Your task to perform on an android device: open a bookmark in the chrome app Image 0: 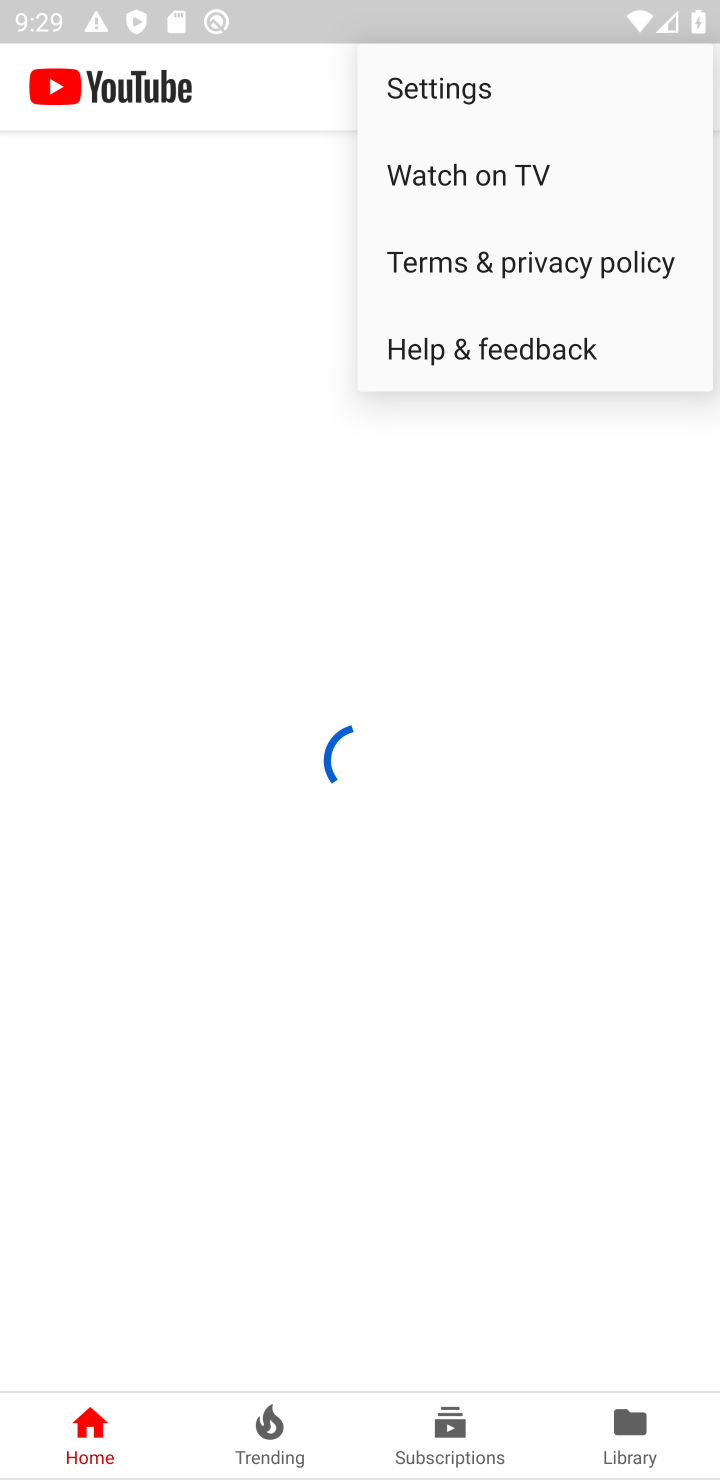
Step 0: press home button
Your task to perform on an android device: open a bookmark in the chrome app Image 1: 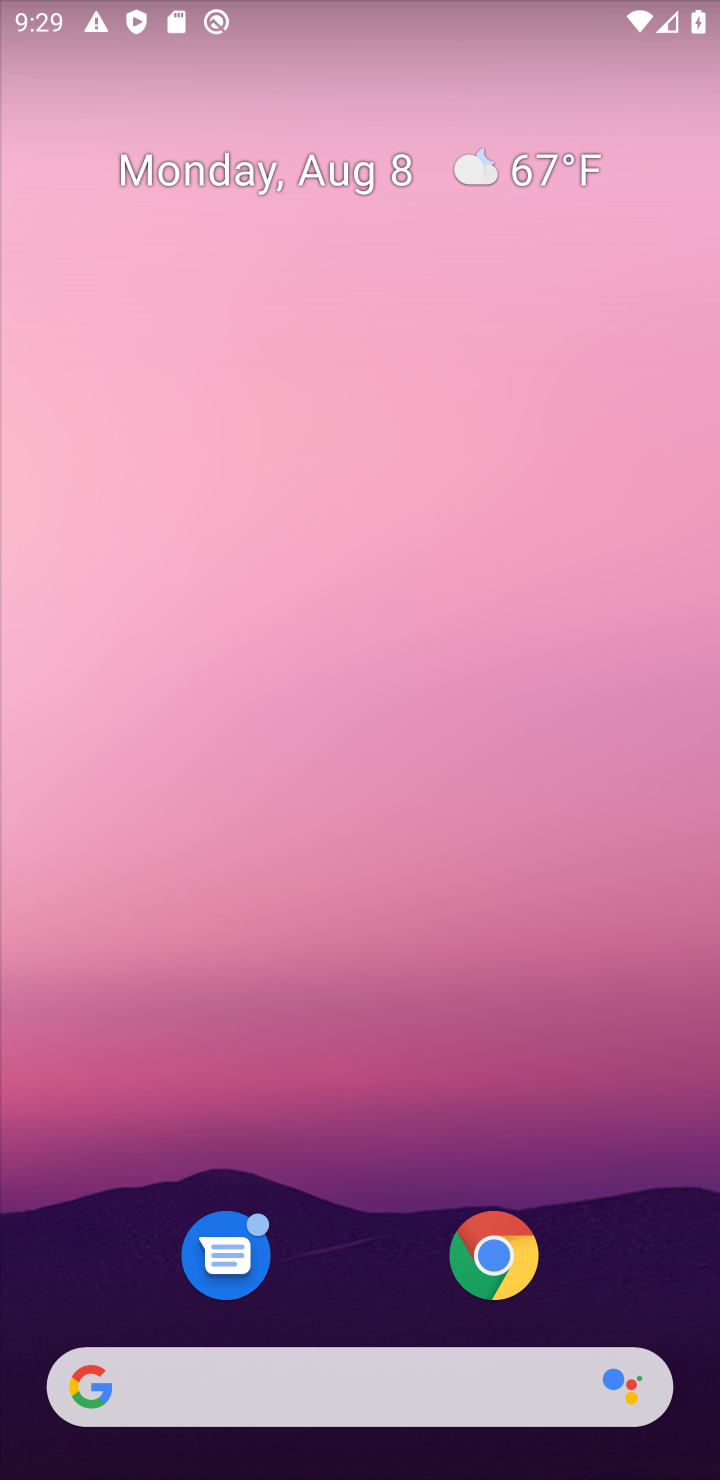
Step 1: click (520, 1229)
Your task to perform on an android device: open a bookmark in the chrome app Image 2: 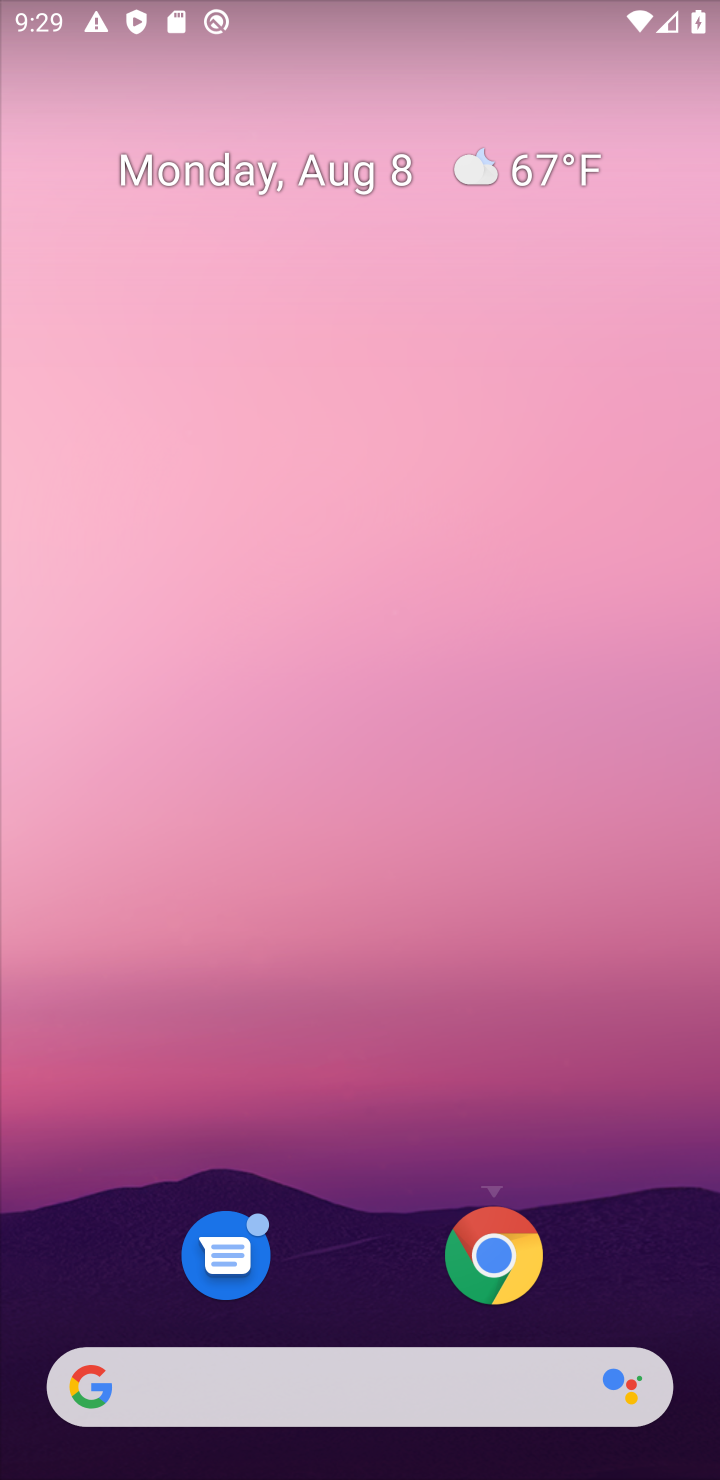
Step 2: click (490, 1269)
Your task to perform on an android device: open a bookmark in the chrome app Image 3: 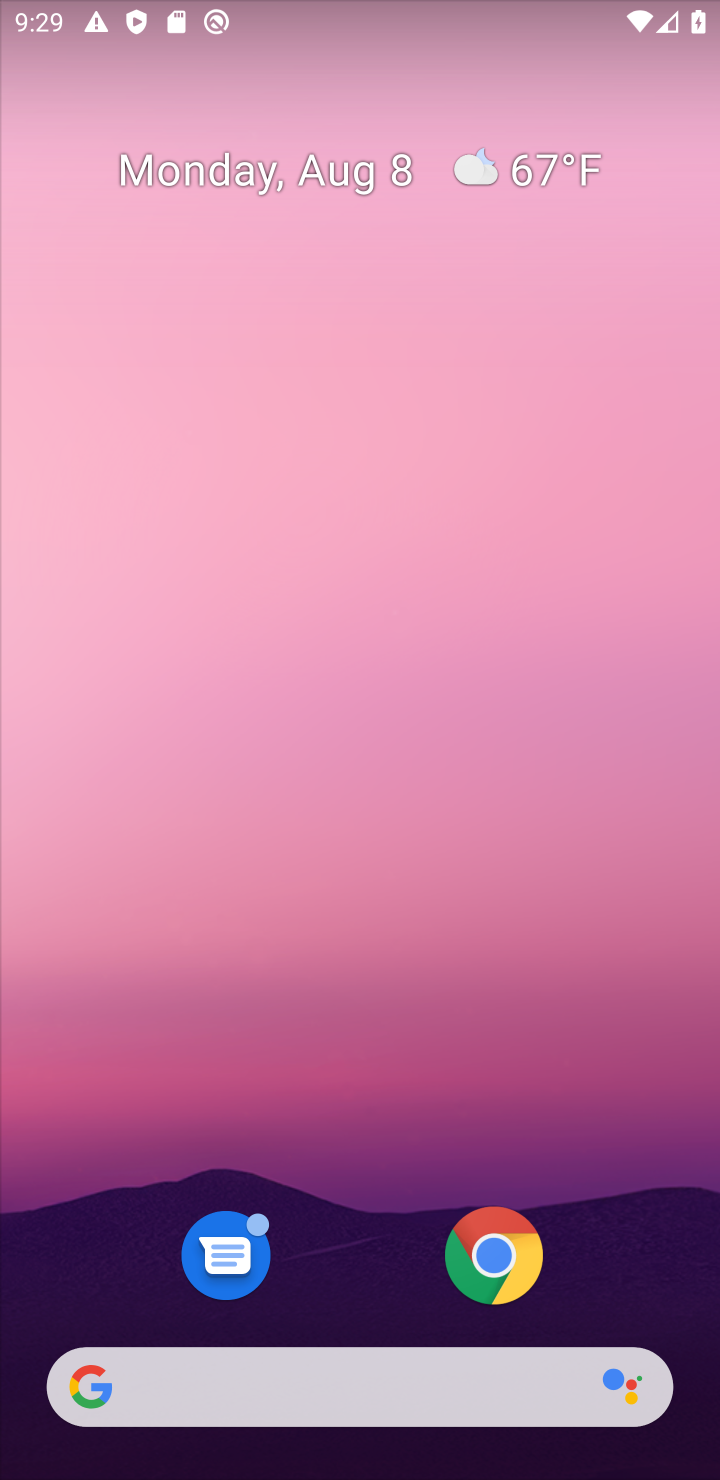
Step 3: click (490, 1269)
Your task to perform on an android device: open a bookmark in the chrome app Image 4: 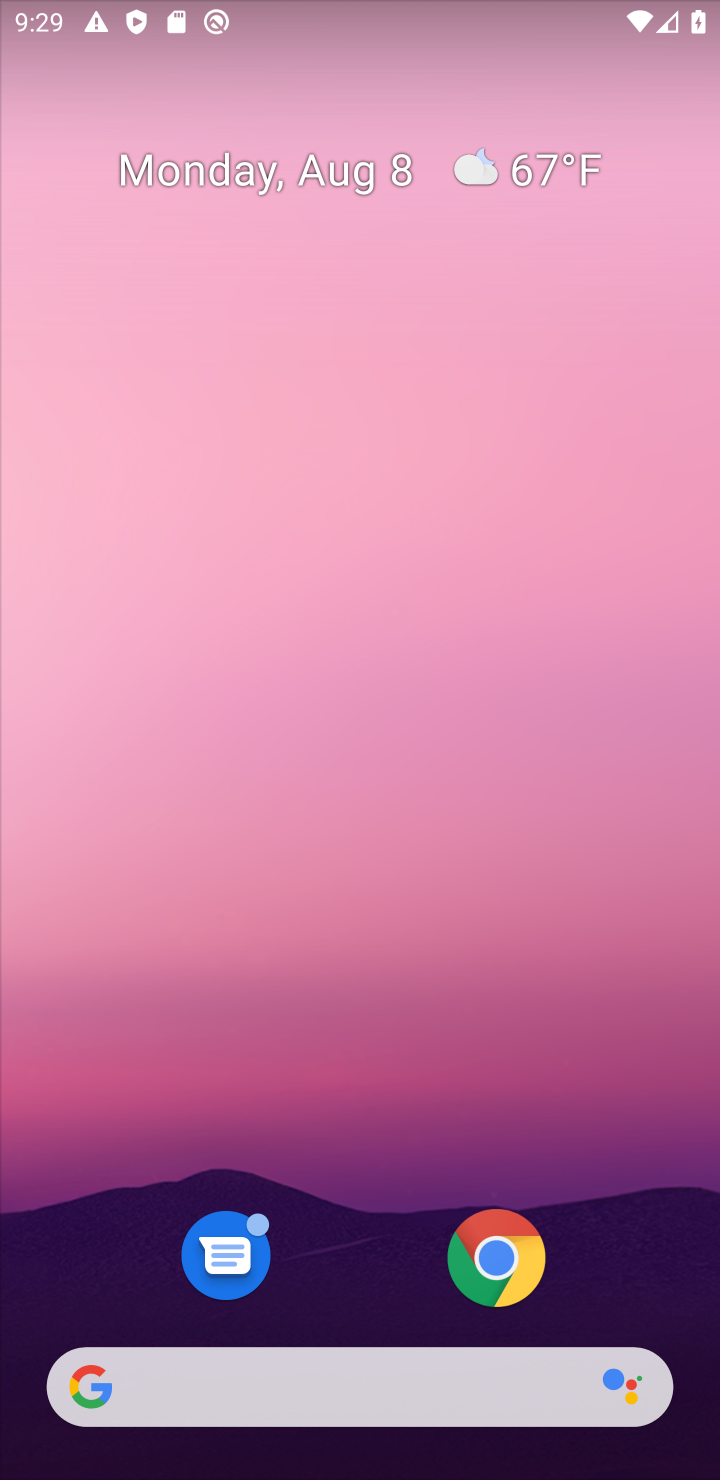
Step 4: click (497, 1251)
Your task to perform on an android device: open a bookmark in the chrome app Image 5: 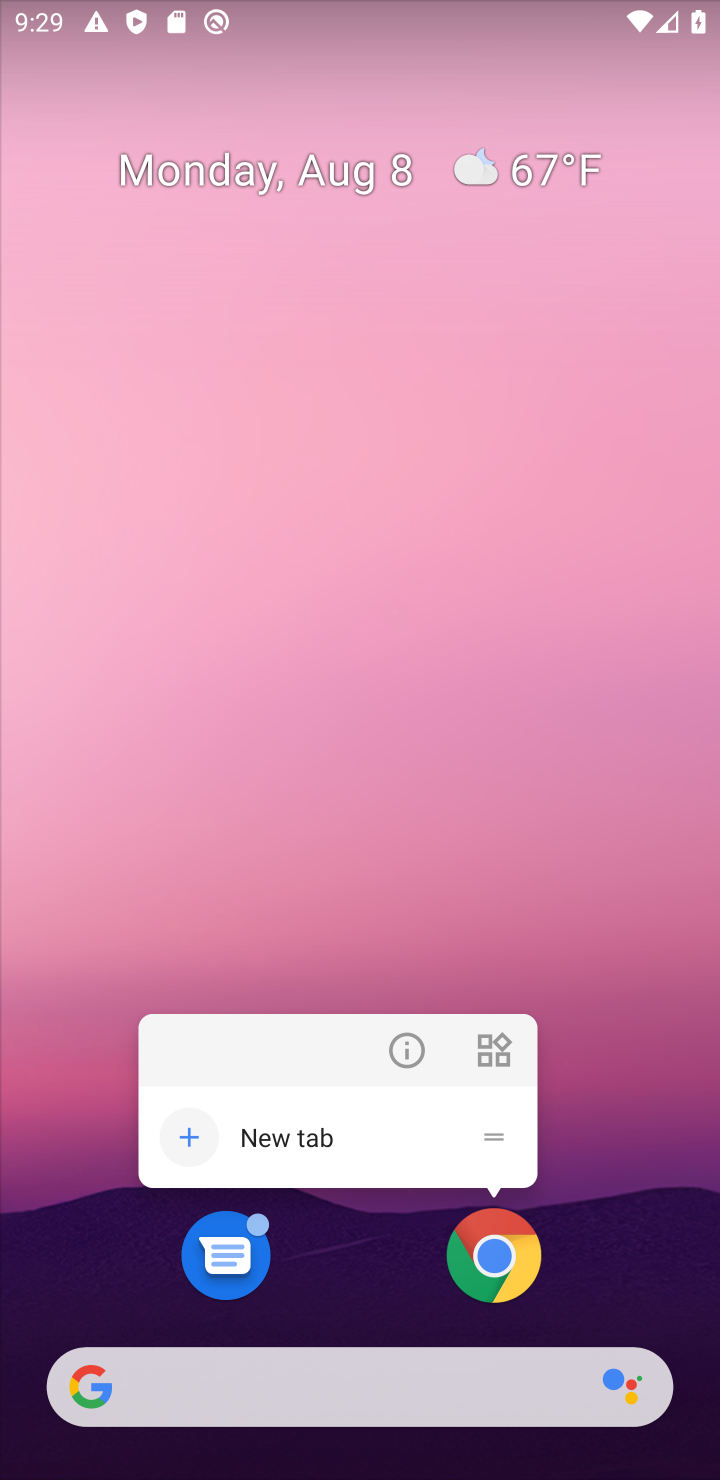
Step 5: click (497, 1251)
Your task to perform on an android device: open a bookmark in the chrome app Image 6: 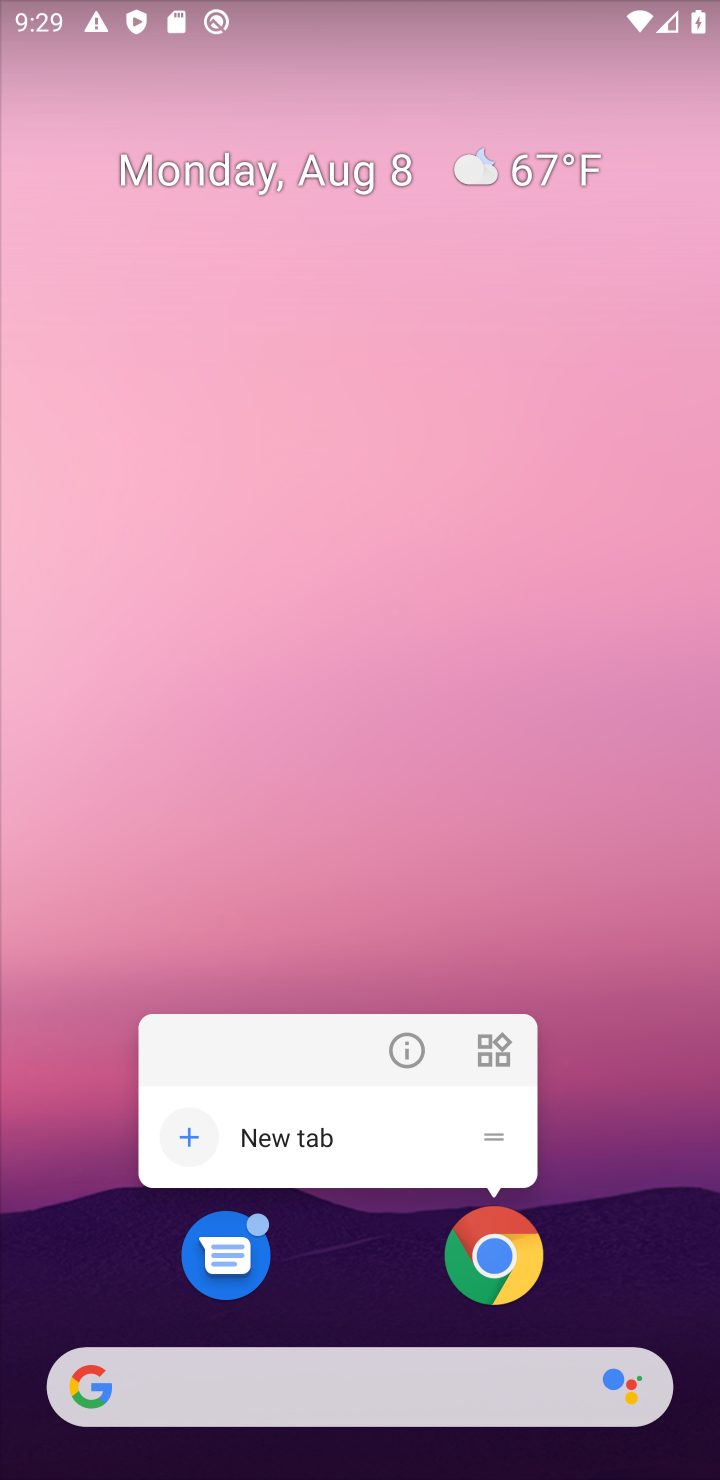
Step 6: click (497, 1251)
Your task to perform on an android device: open a bookmark in the chrome app Image 7: 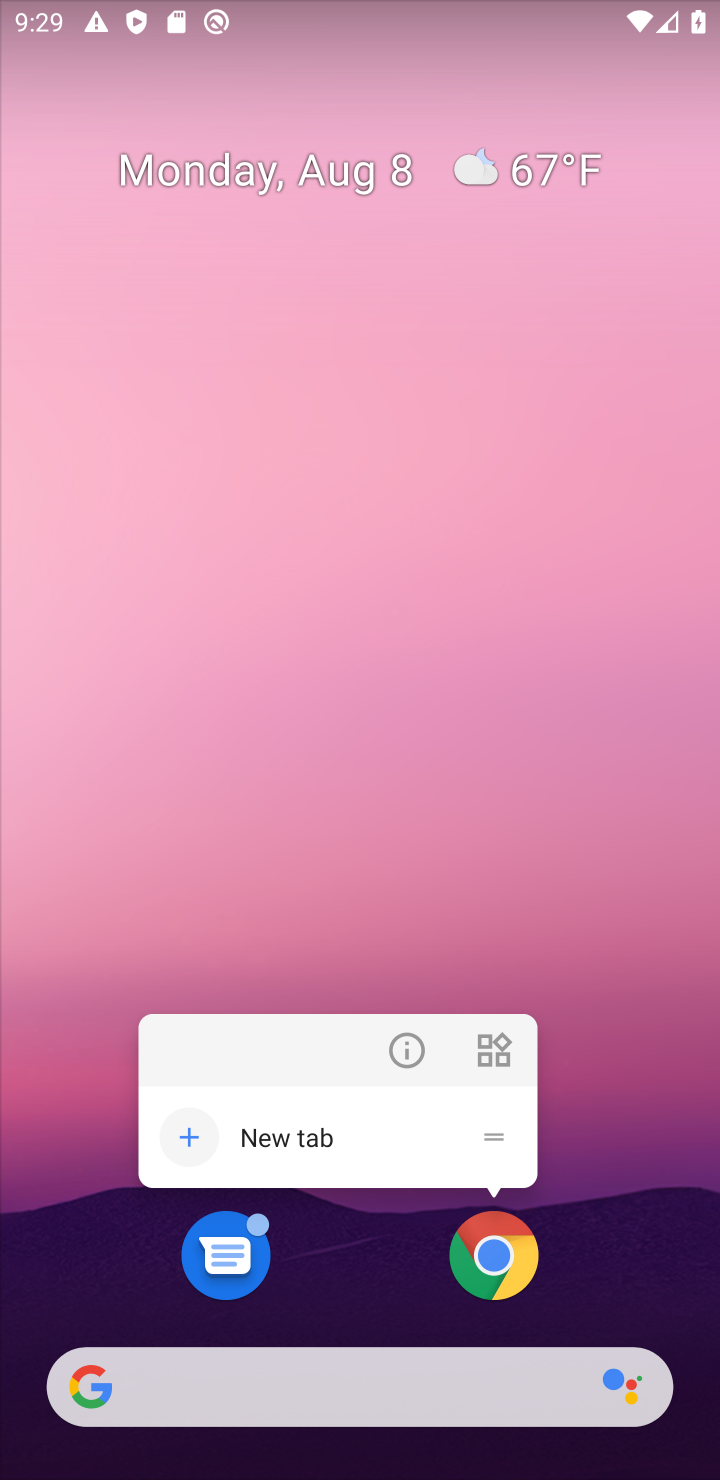
Step 7: click (497, 1251)
Your task to perform on an android device: open a bookmark in the chrome app Image 8: 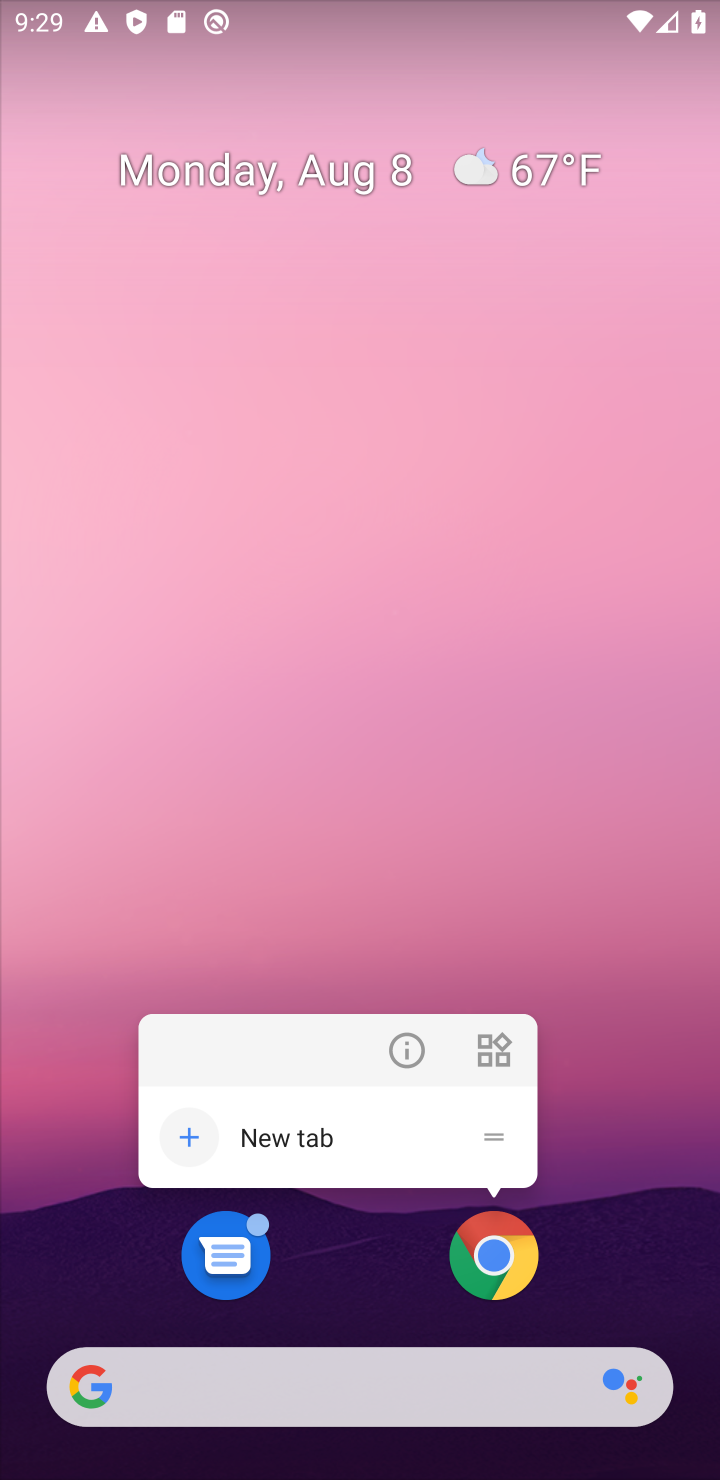
Step 8: click (503, 1267)
Your task to perform on an android device: open a bookmark in the chrome app Image 9: 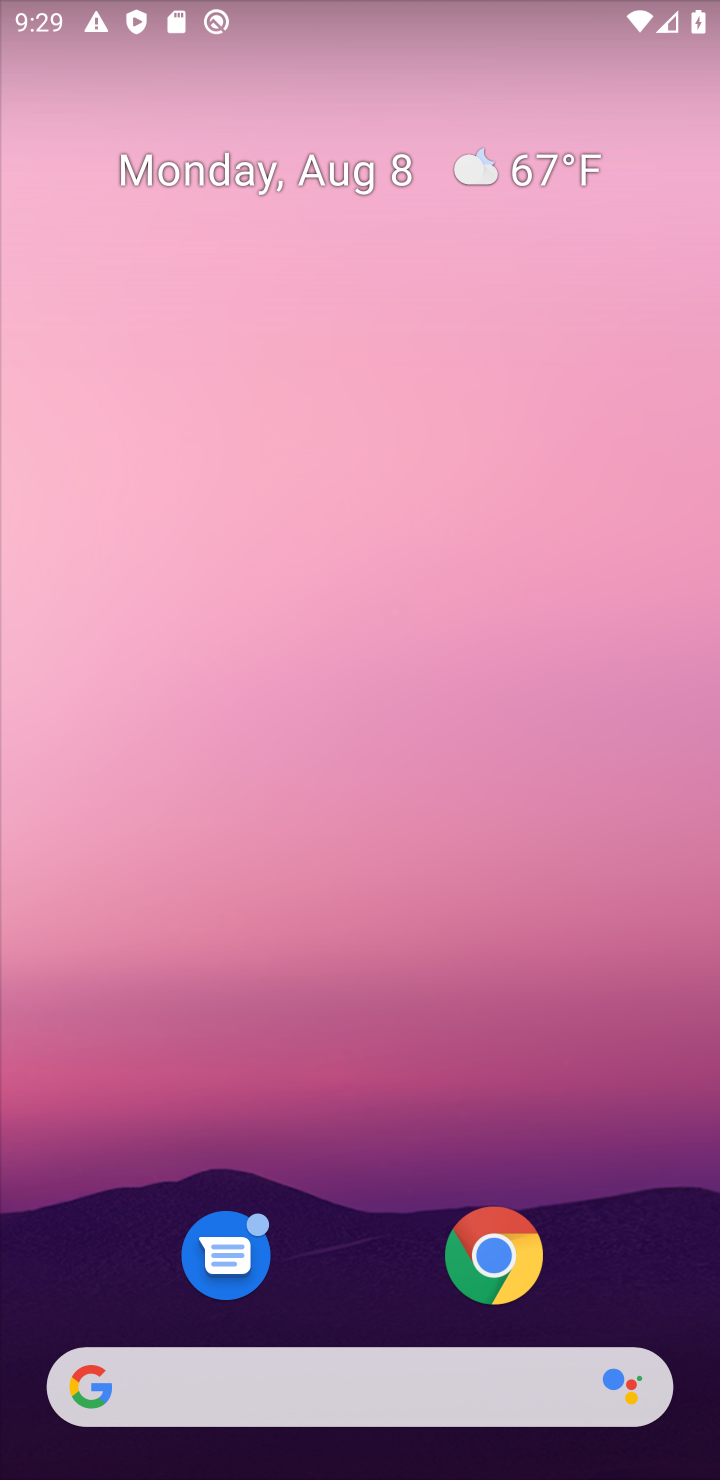
Step 9: click (503, 1267)
Your task to perform on an android device: open a bookmark in the chrome app Image 10: 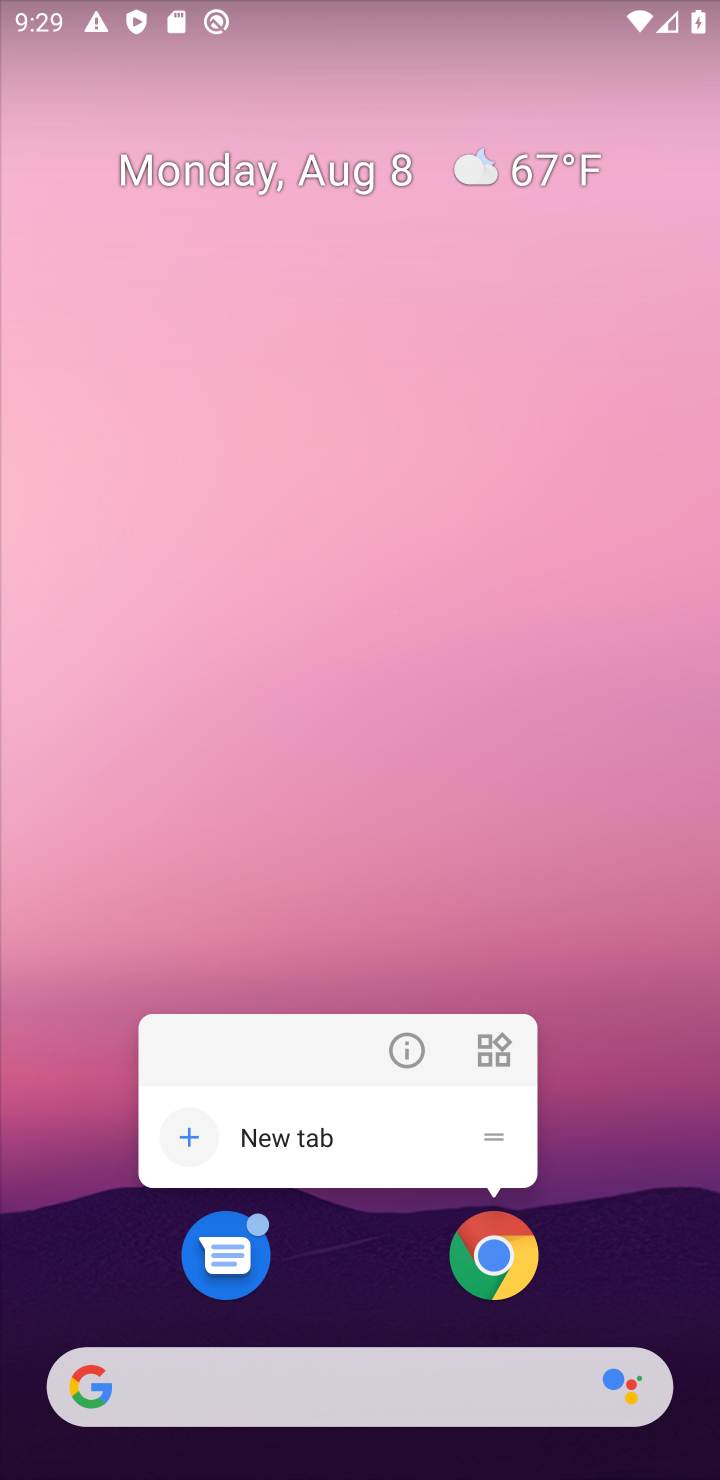
Step 10: click (506, 1285)
Your task to perform on an android device: open a bookmark in the chrome app Image 11: 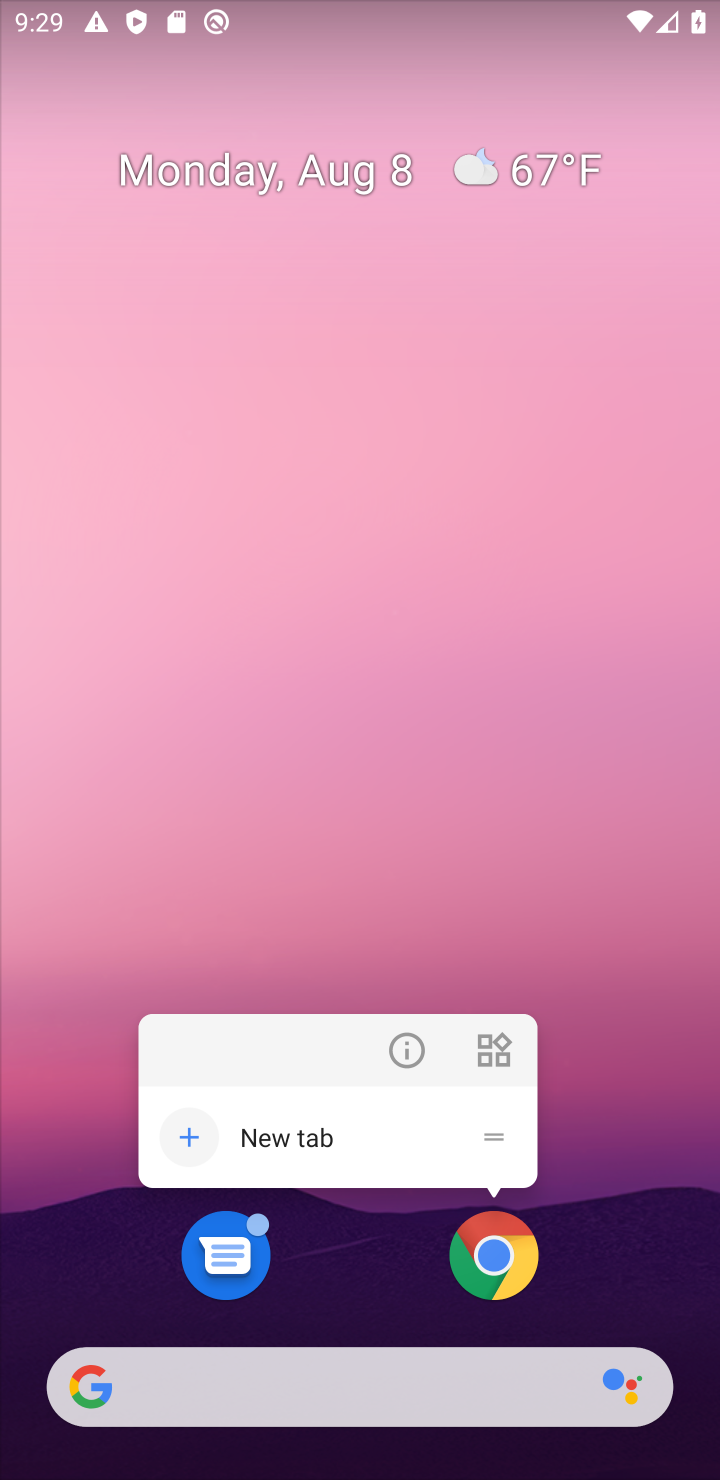
Step 11: click (474, 1258)
Your task to perform on an android device: open a bookmark in the chrome app Image 12: 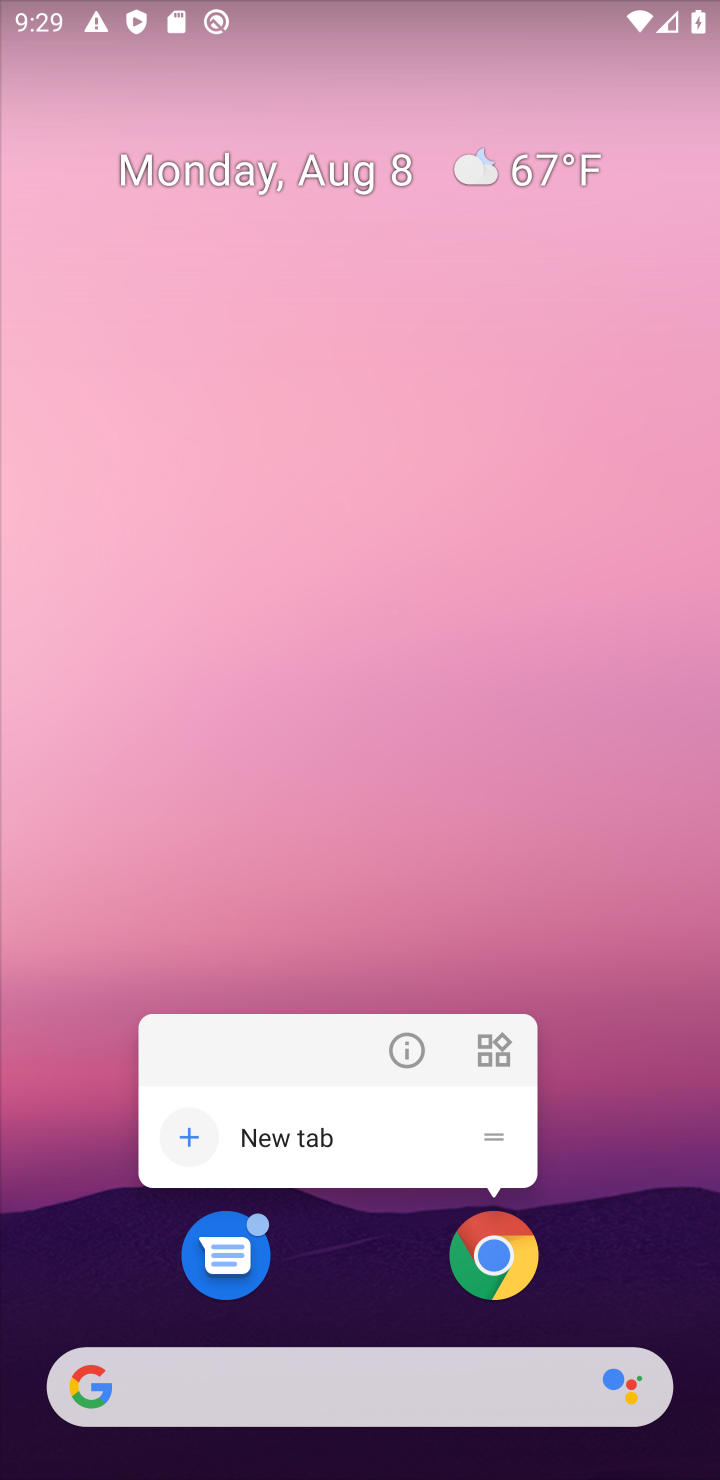
Step 12: click (474, 1258)
Your task to perform on an android device: open a bookmark in the chrome app Image 13: 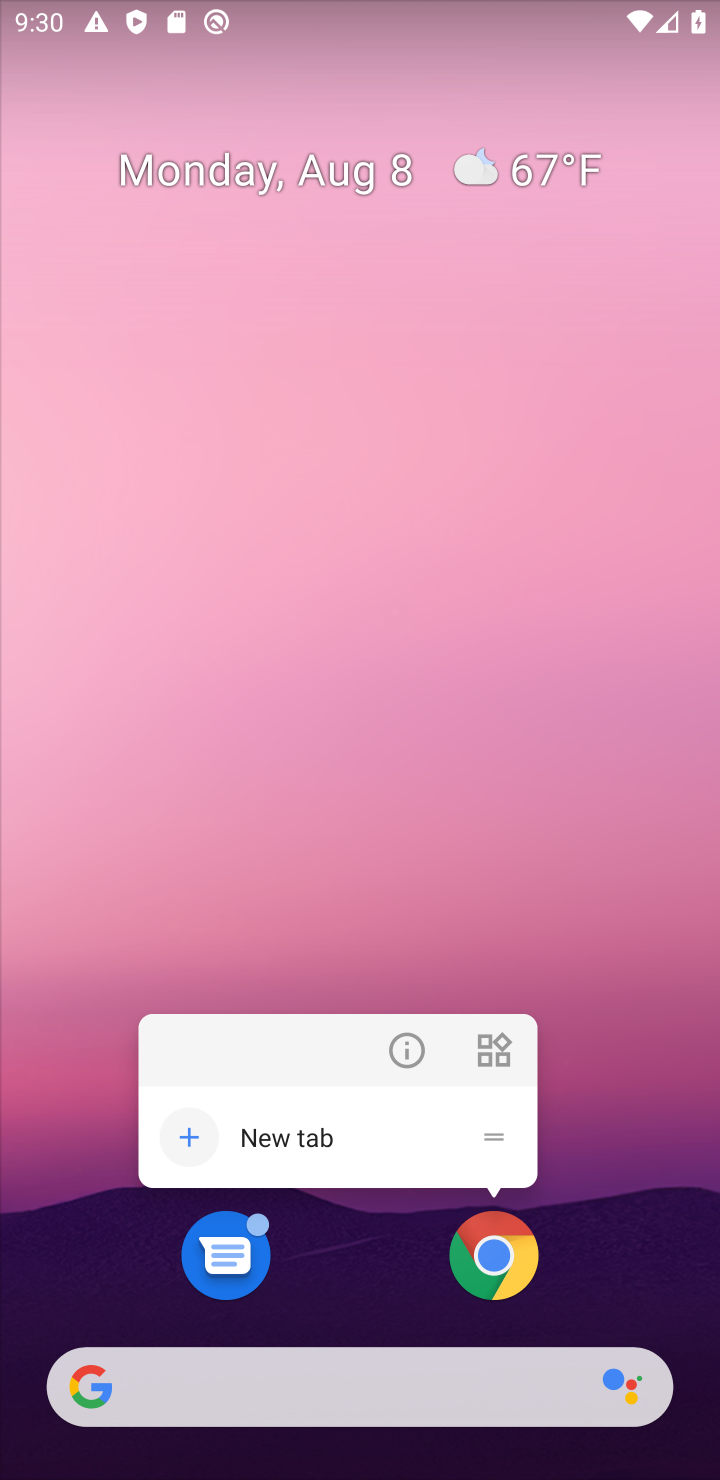
Step 13: click (474, 1258)
Your task to perform on an android device: open a bookmark in the chrome app Image 14: 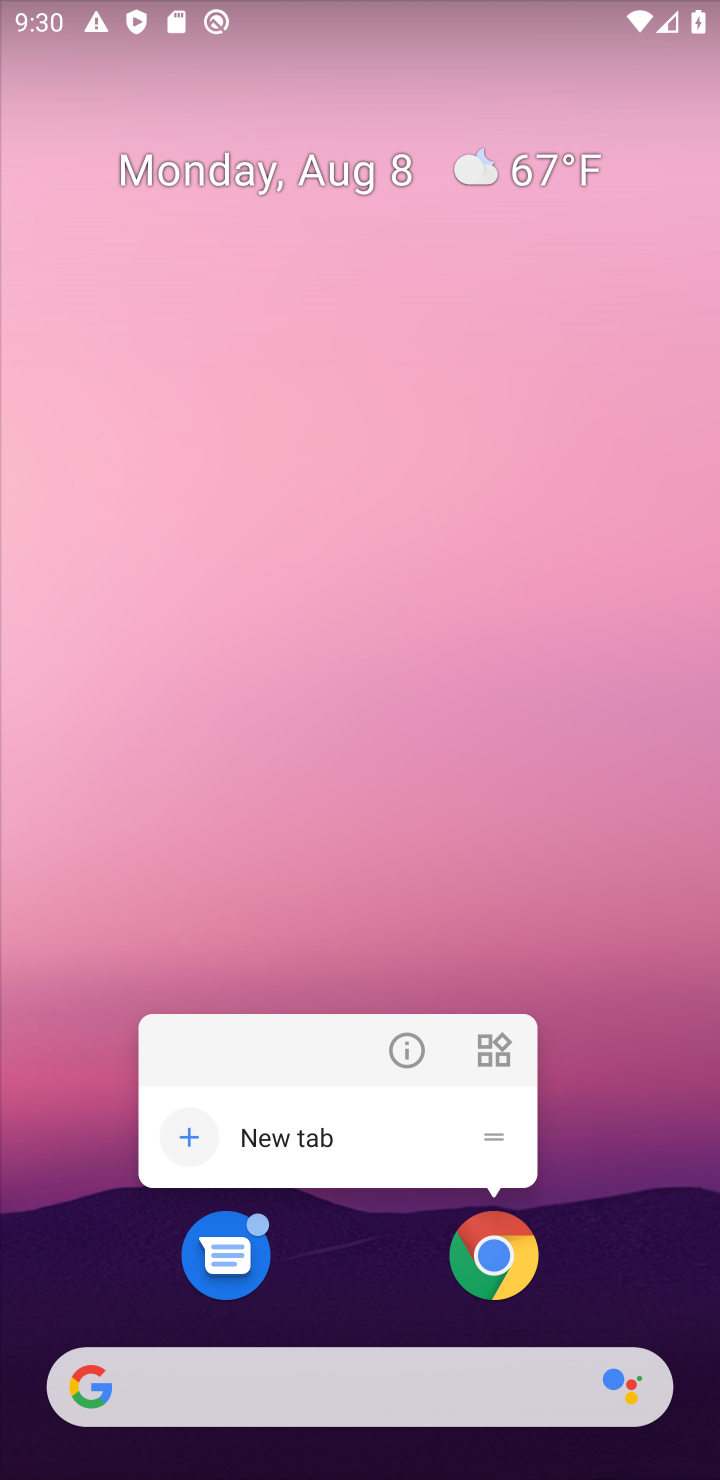
Step 14: click (494, 1288)
Your task to perform on an android device: open a bookmark in the chrome app Image 15: 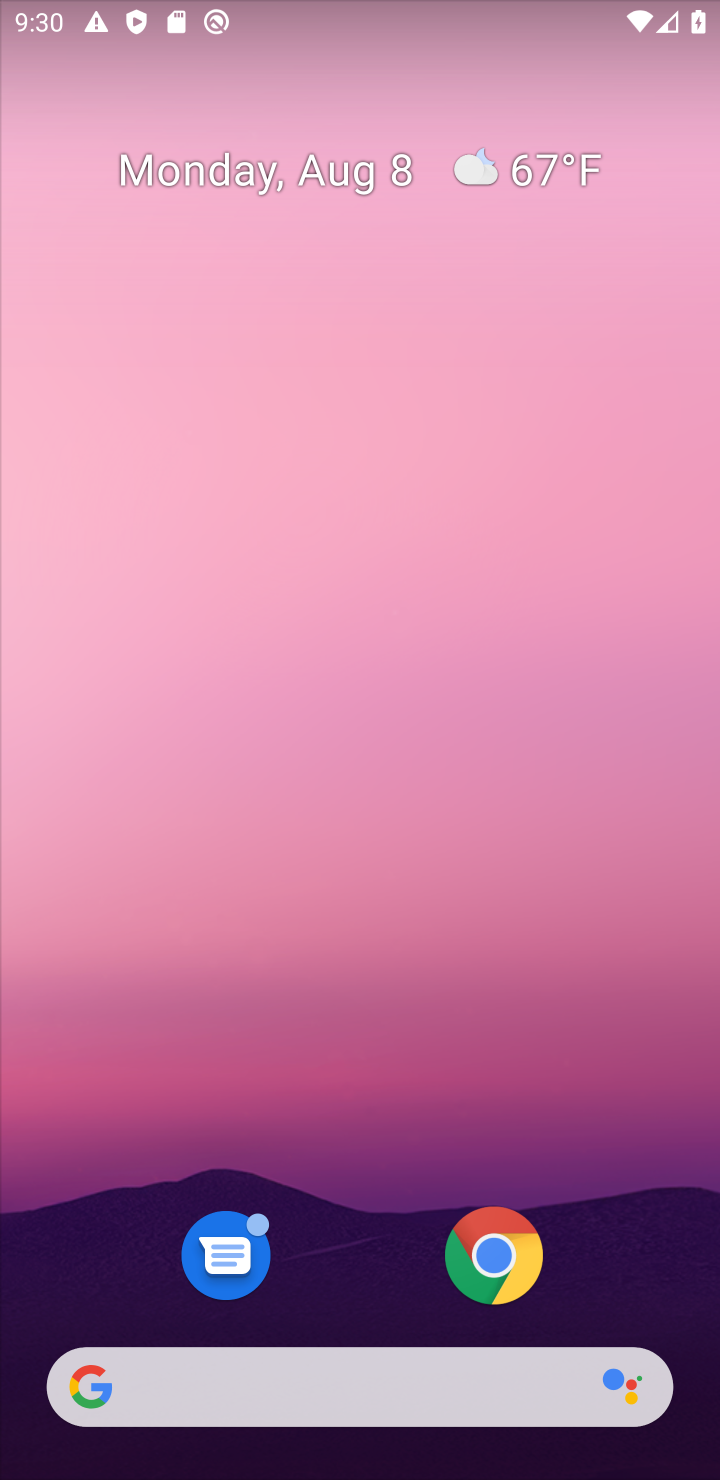
Step 15: drag from (278, 969) to (309, 266)
Your task to perform on an android device: open a bookmark in the chrome app Image 16: 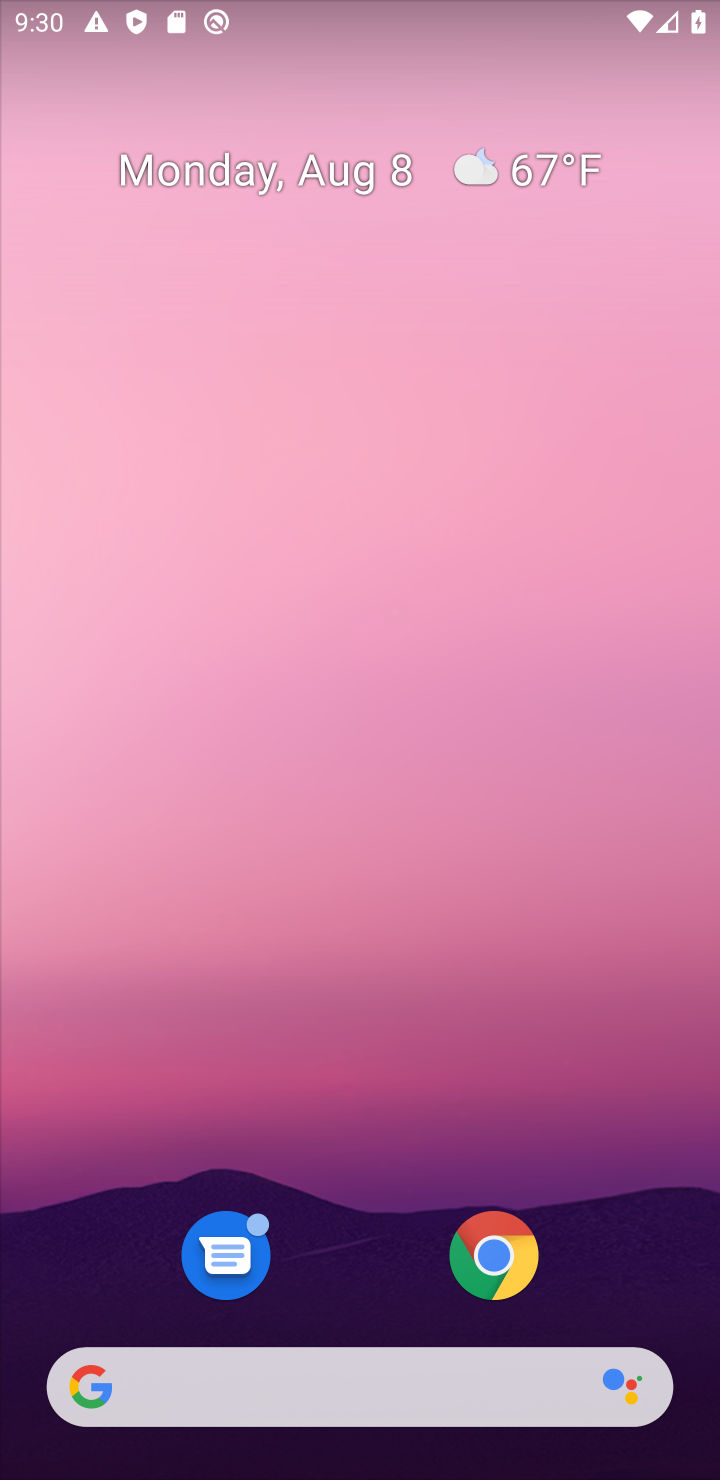
Step 16: drag from (325, 1442) to (431, 325)
Your task to perform on an android device: open a bookmark in the chrome app Image 17: 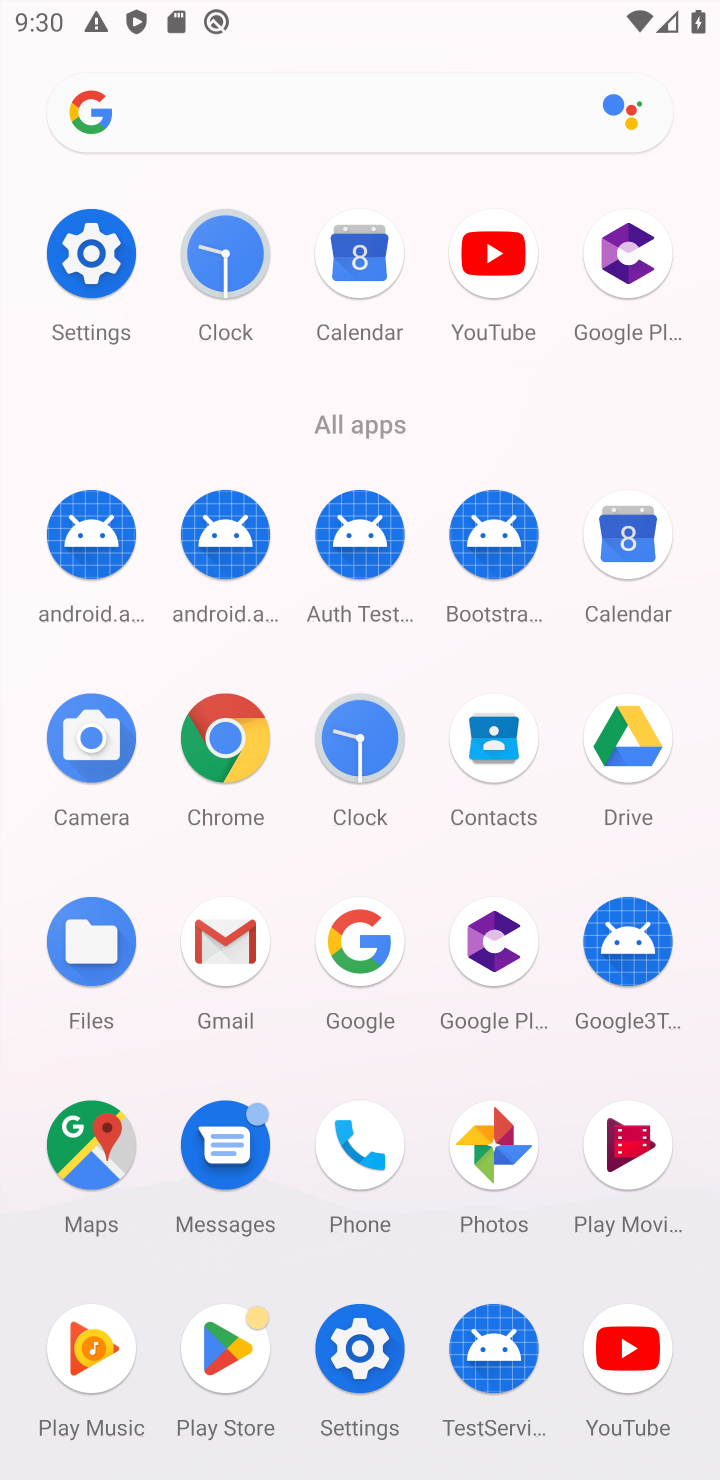
Step 17: click (193, 721)
Your task to perform on an android device: open a bookmark in the chrome app Image 18: 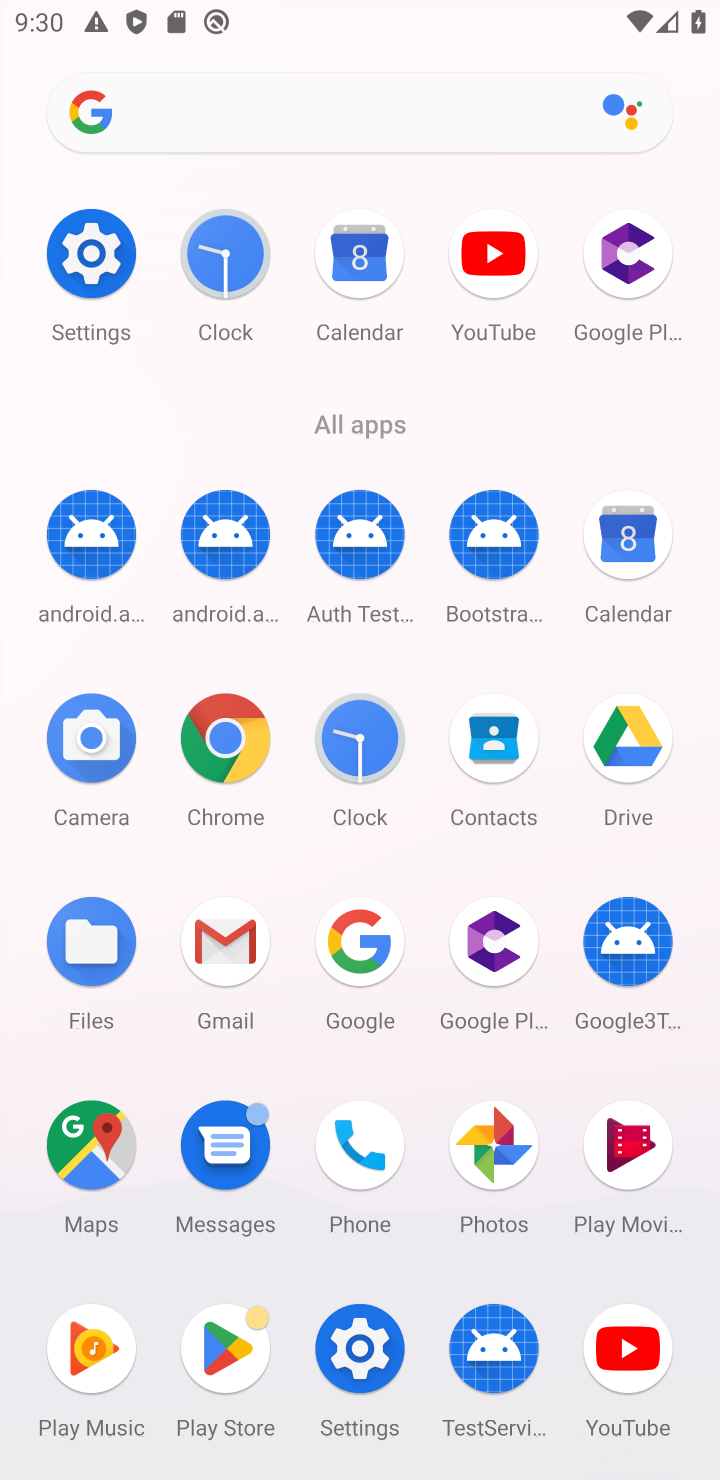
Step 18: click (193, 721)
Your task to perform on an android device: open a bookmark in the chrome app Image 19: 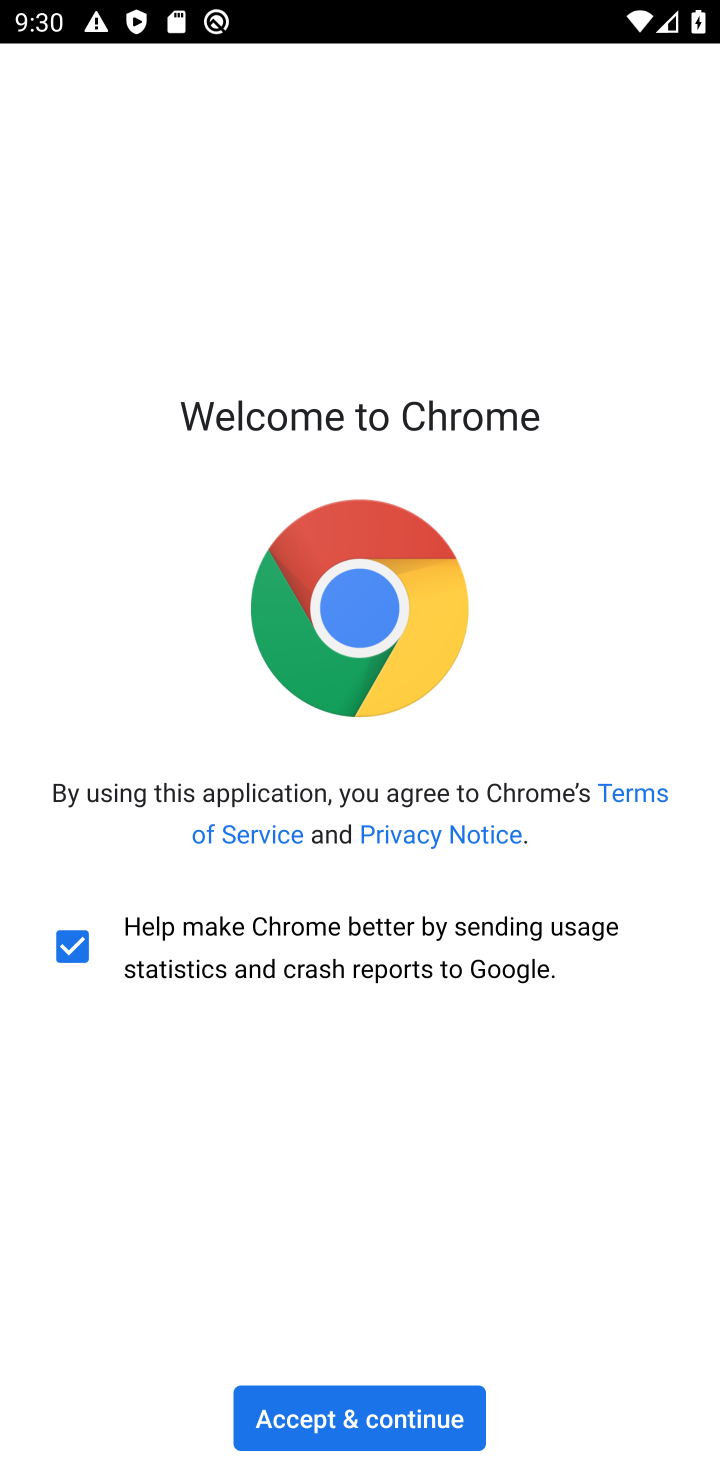
Step 19: click (325, 1409)
Your task to perform on an android device: open a bookmark in the chrome app Image 20: 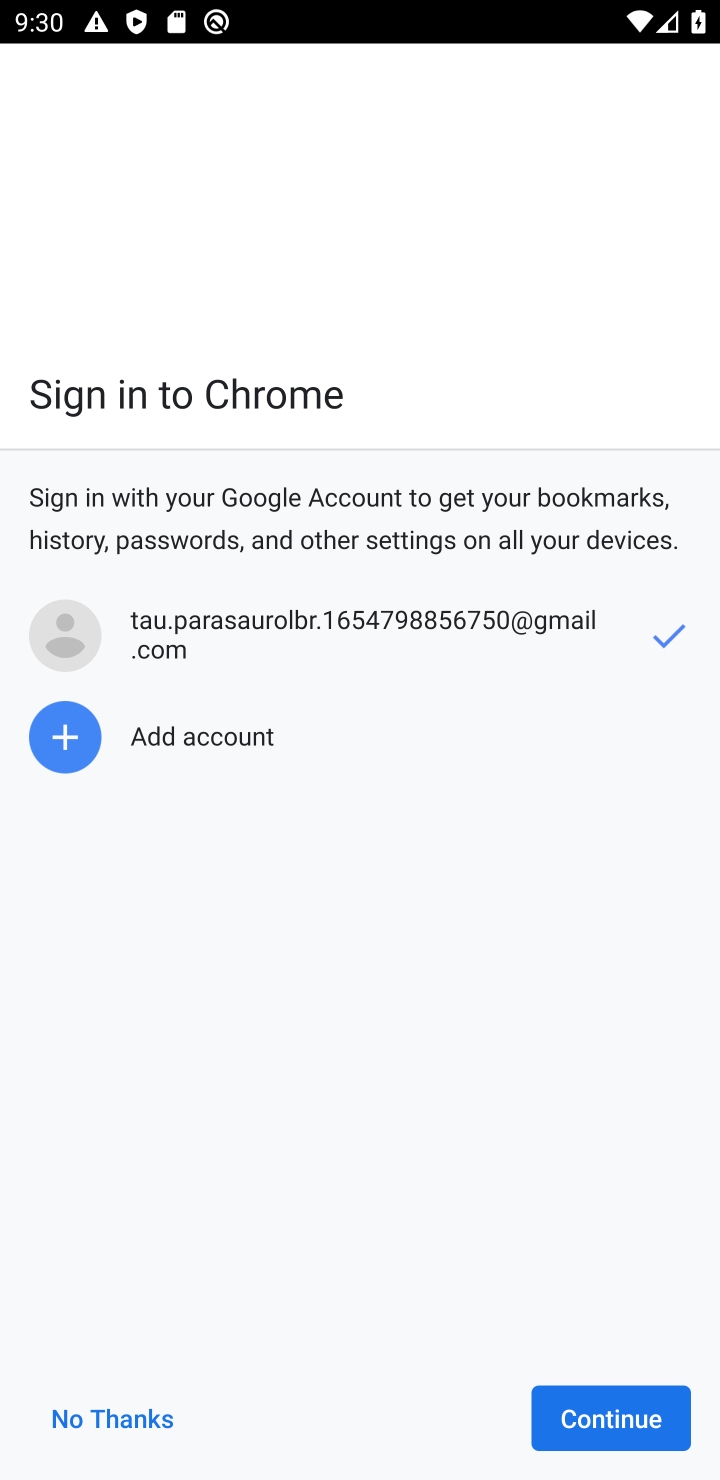
Step 20: click (325, 1409)
Your task to perform on an android device: open a bookmark in the chrome app Image 21: 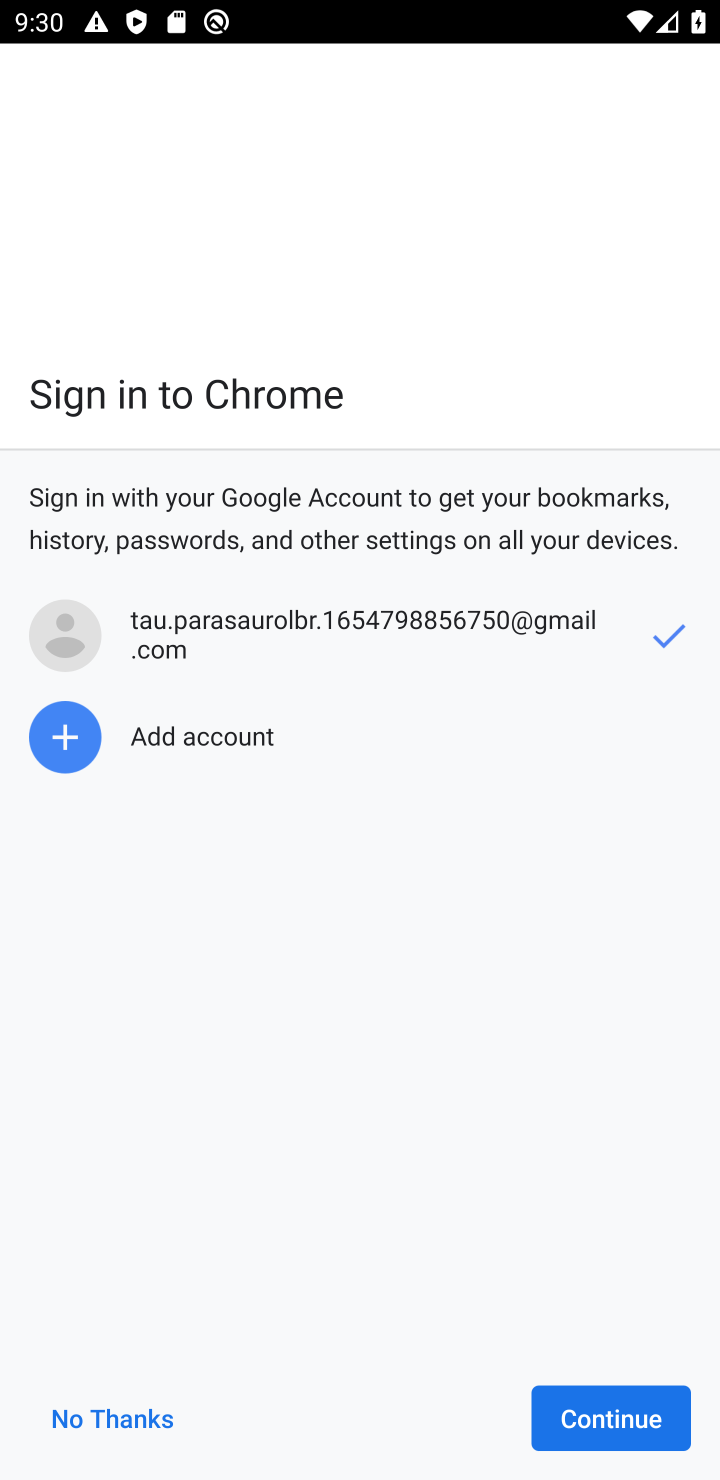
Step 21: click (618, 1415)
Your task to perform on an android device: open a bookmark in the chrome app Image 22: 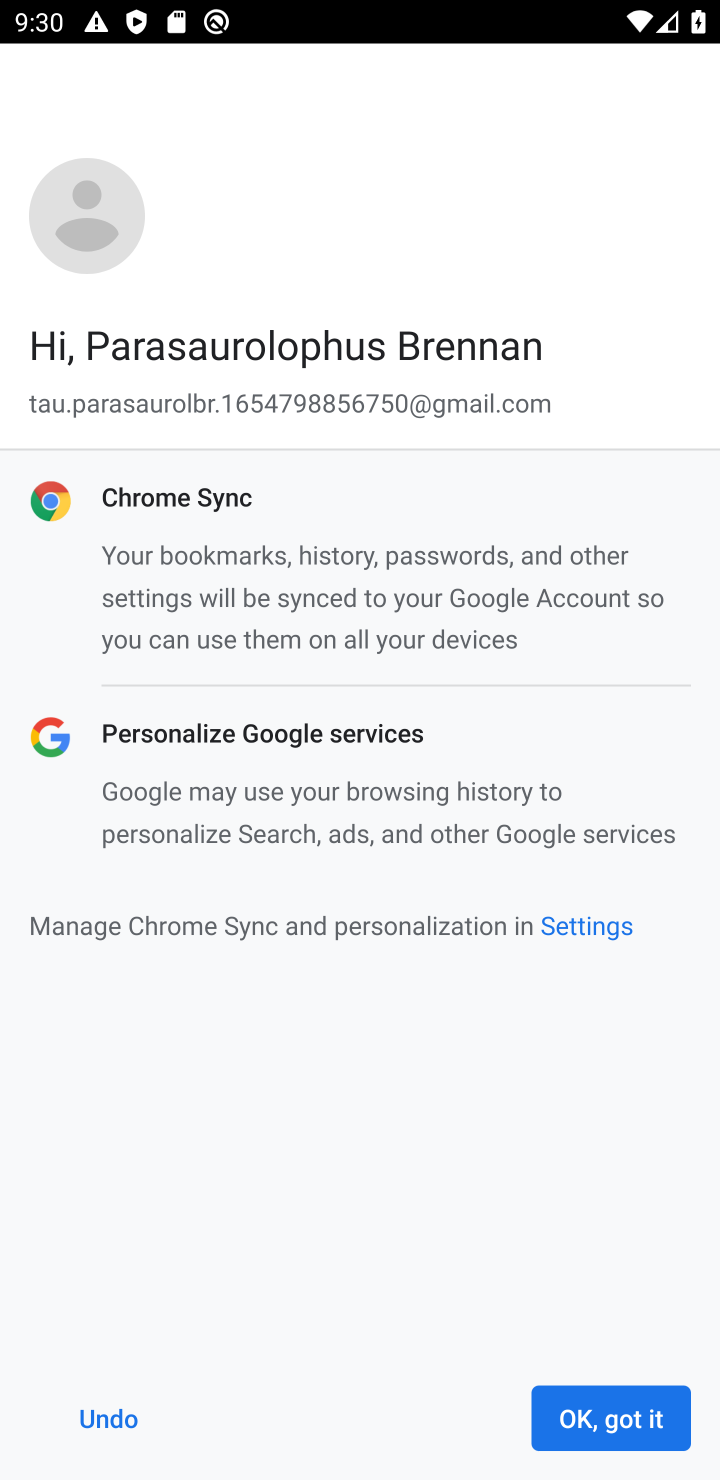
Step 22: click (565, 1426)
Your task to perform on an android device: open a bookmark in the chrome app Image 23: 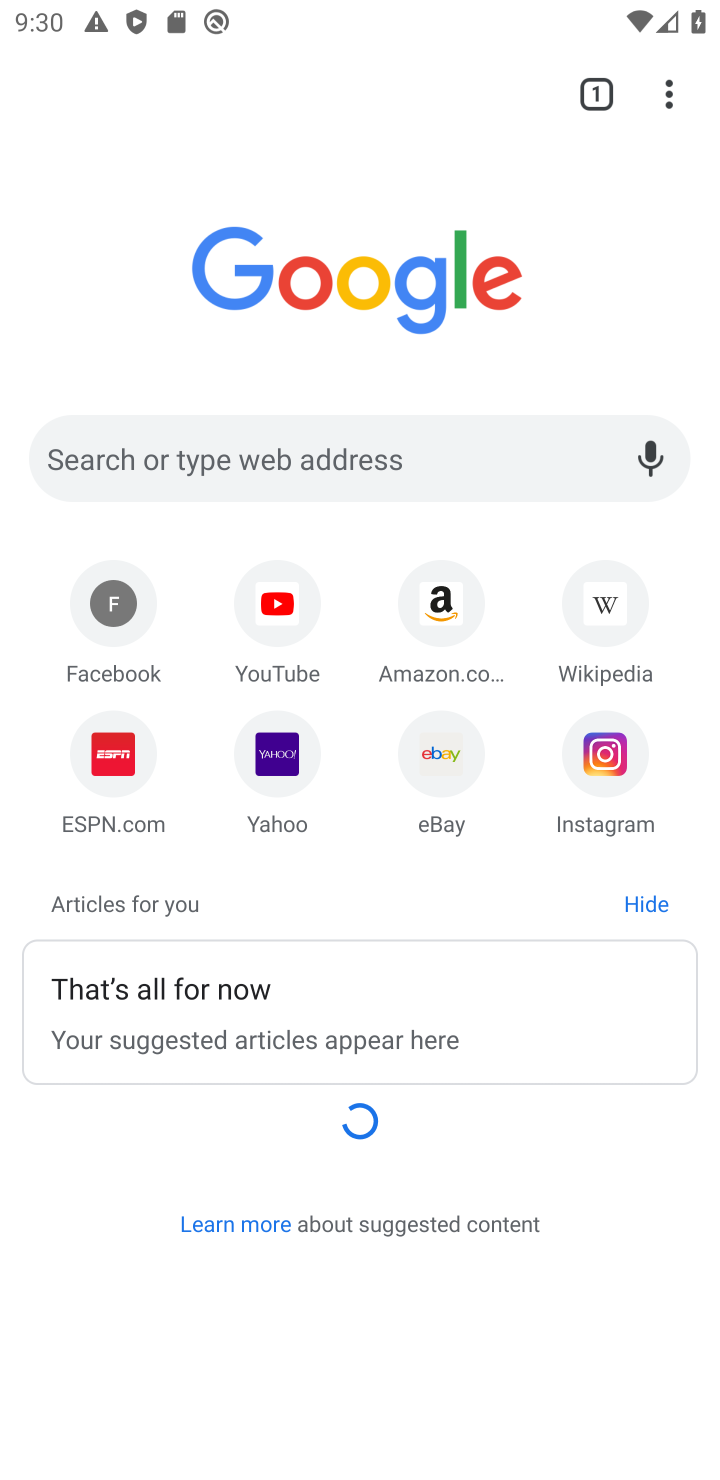
Step 23: click (669, 89)
Your task to perform on an android device: open a bookmark in the chrome app Image 24: 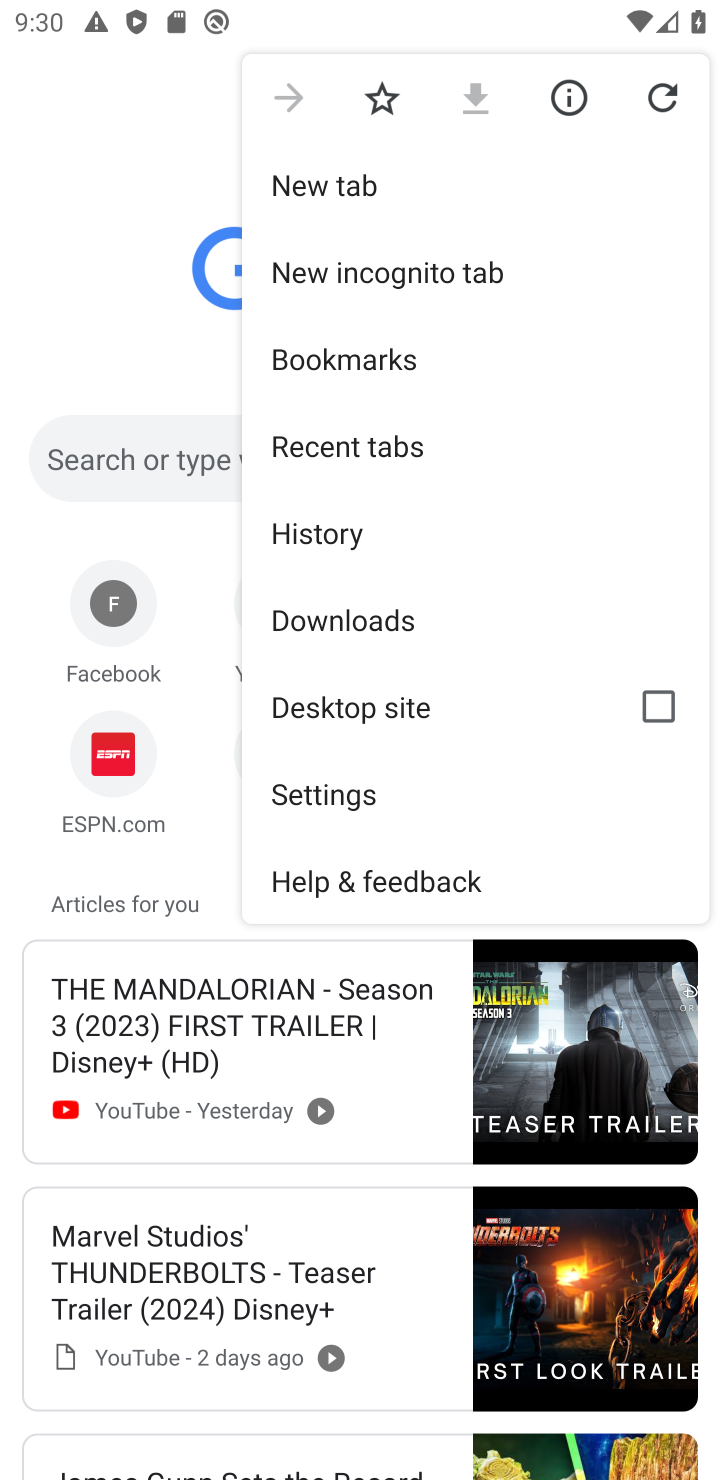
Step 24: click (426, 361)
Your task to perform on an android device: open a bookmark in the chrome app Image 25: 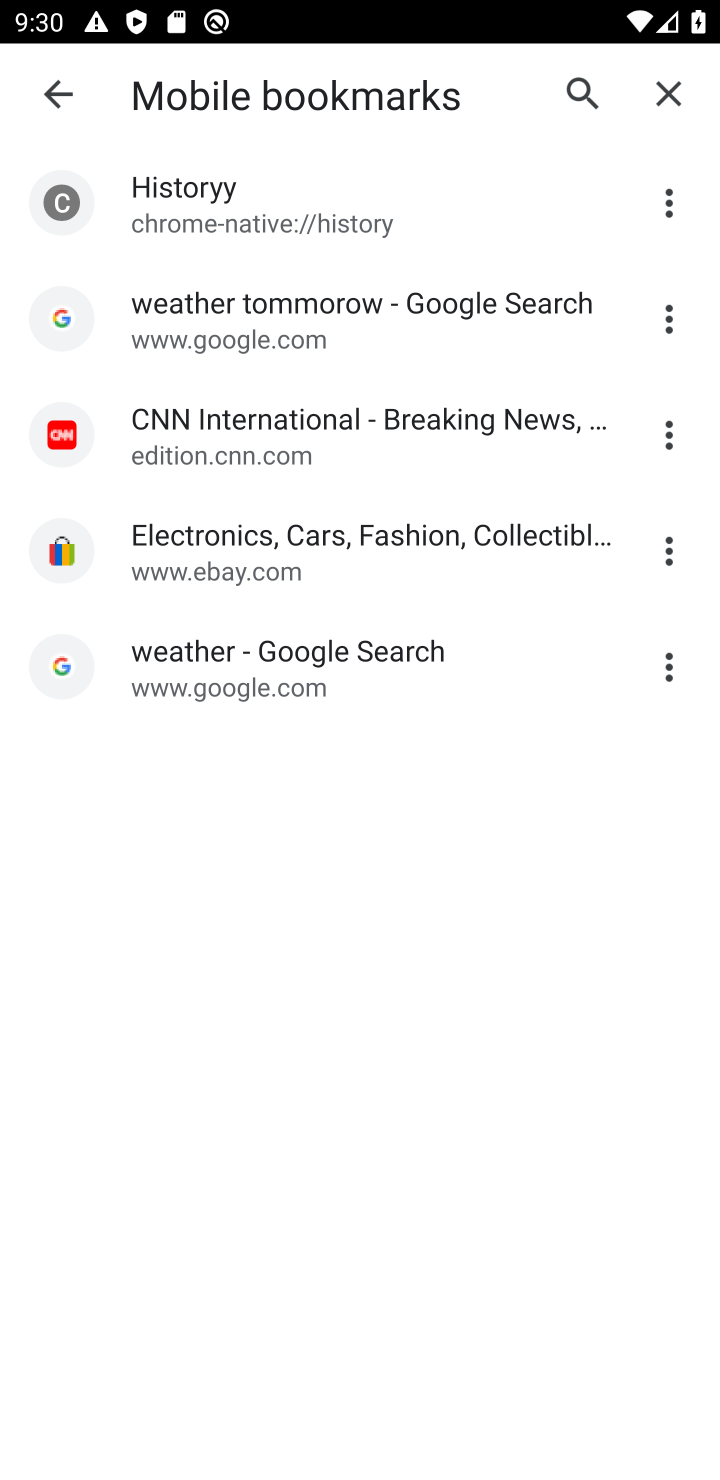
Step 25: click (454, 538)
Your task to perform on an android device: open a bookmark in the chrome app Image 26: 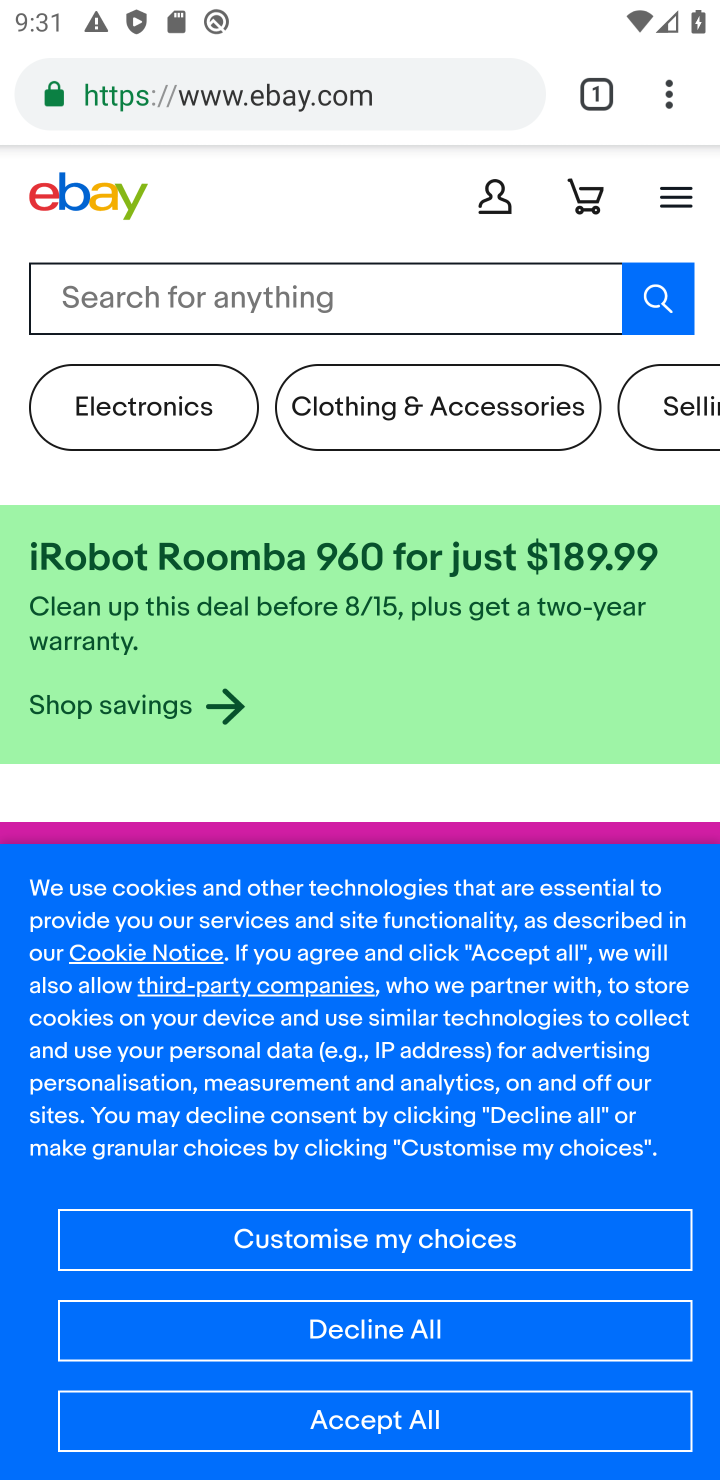
Step 26: click (681, 93)
Your task to perform on an android device: open a bookmark in the chrome app Image 27: 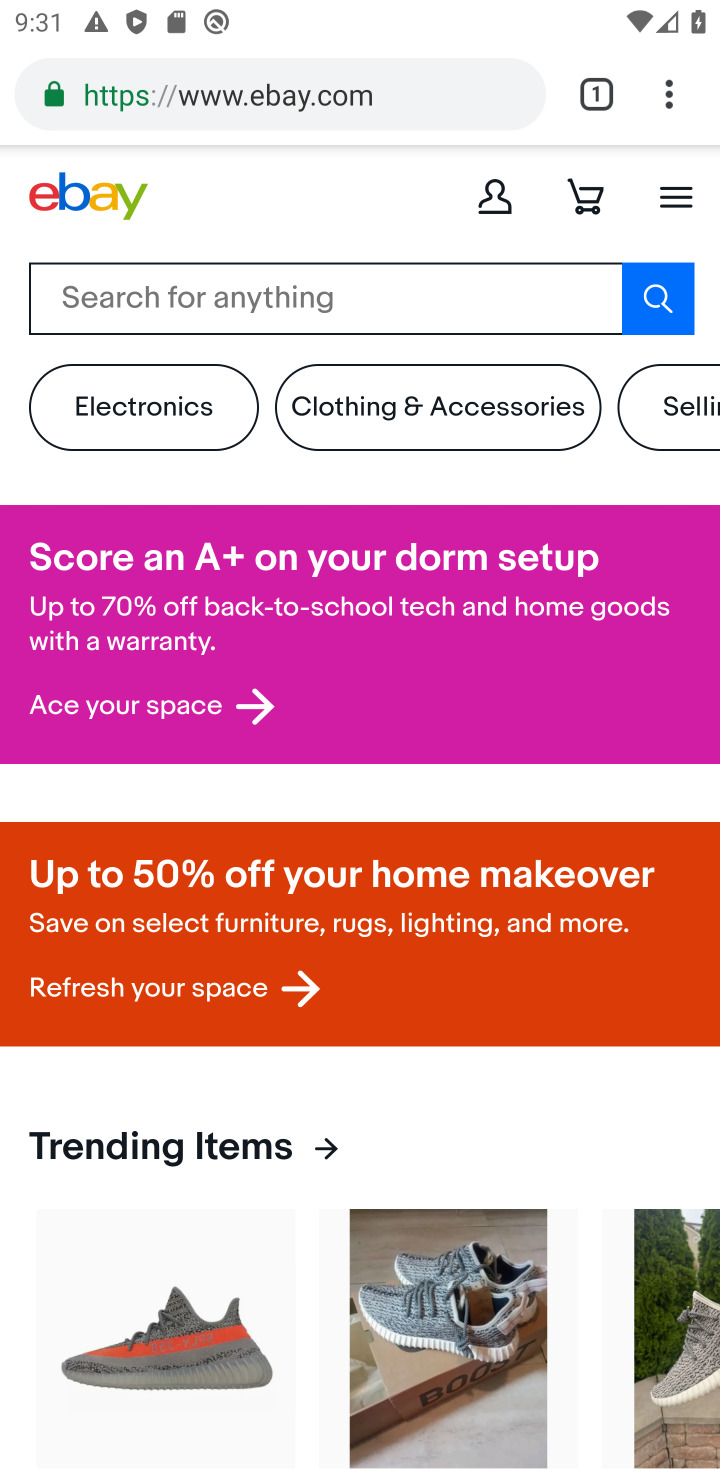
Step 27: task complete